Your task to perform on an android device: turn off priority inbox in the gmail app Image 0: 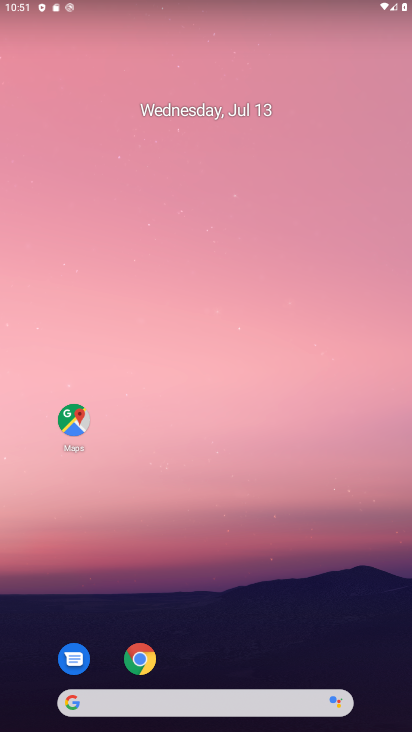
Step 0: click (224, 144)
Your task to perform on an android device: turn off priority inbox in the gmail app Image 1: 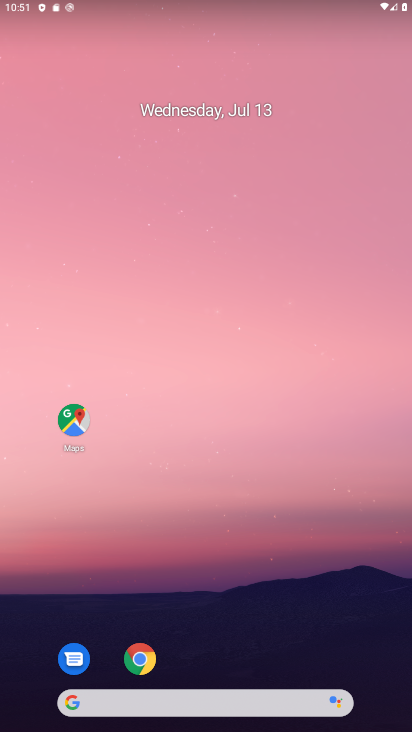
Step 1: drag from (243, 629) to (224, 34)
Your task to perform on an android device: turn off priority inbox in the gmail app Image 2: 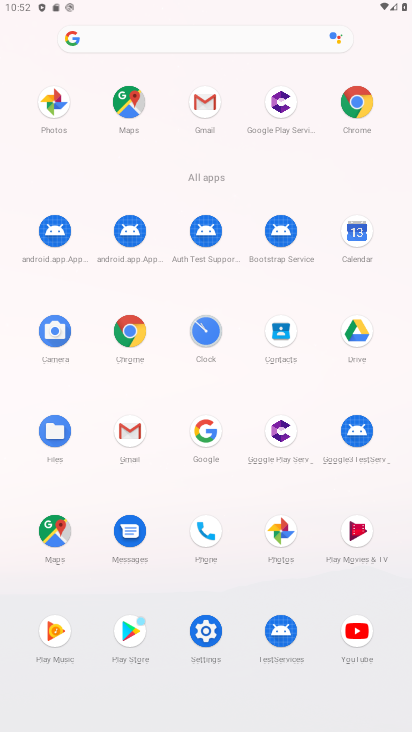
Step 2: click (137, 439)
Your task to perform on an android device: turn off priority inbox in the gmail app Image 3: 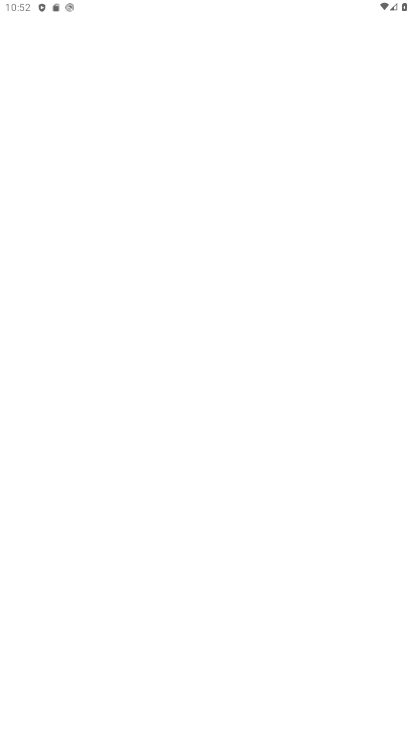
Step 3: click (137, 437)
Your task to perform on an android device: turn off priority inbox in the gmail app Image 4: 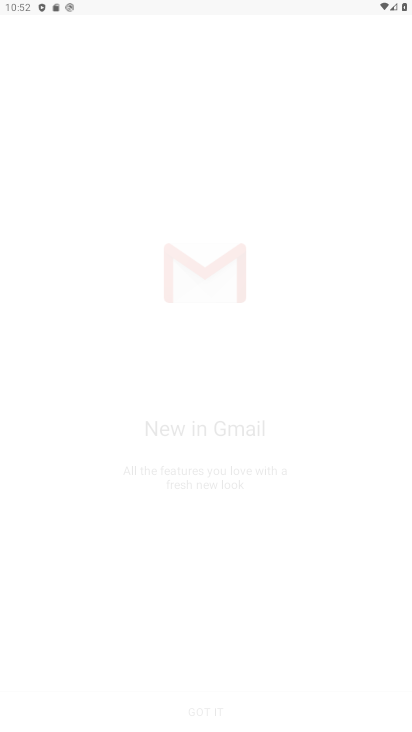
Step 4: click (137, 437)
Your task to perform on an android device: turn off priority inbox in the gmail app Image 5: 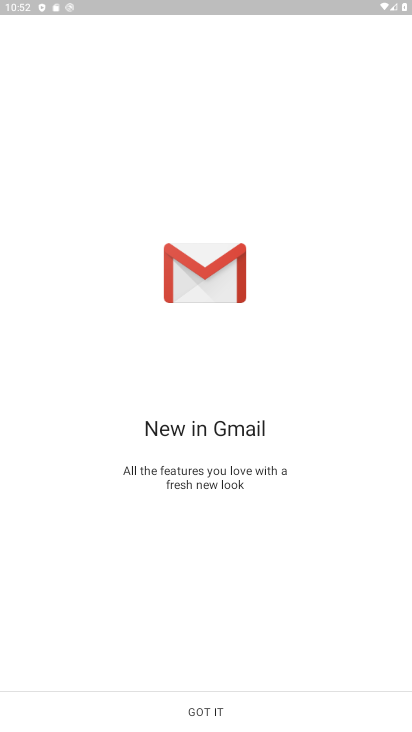
Step 5: click (137, 437)
Your task to perform on an android device: turn off priority inbox in the gmail app Image 6: 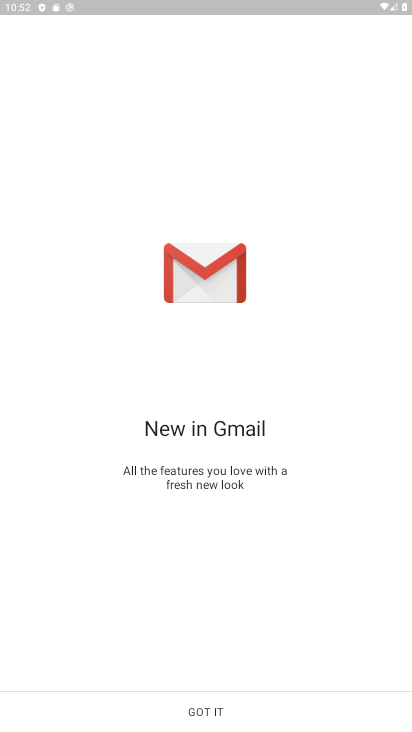
Step 6: click (219, 705)
Your task to perform on an android device: turn off priority inbox in the gmail app Image 7: 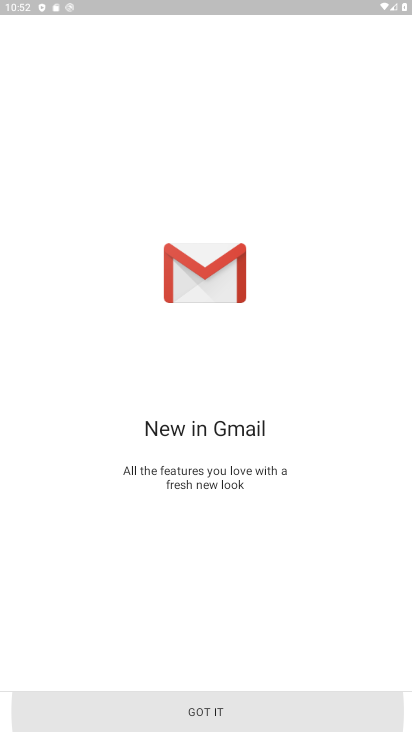
Step 7: click (219, 705)
Your task to perform on an android device: turn off priority inbox in the gmail app Image 8: 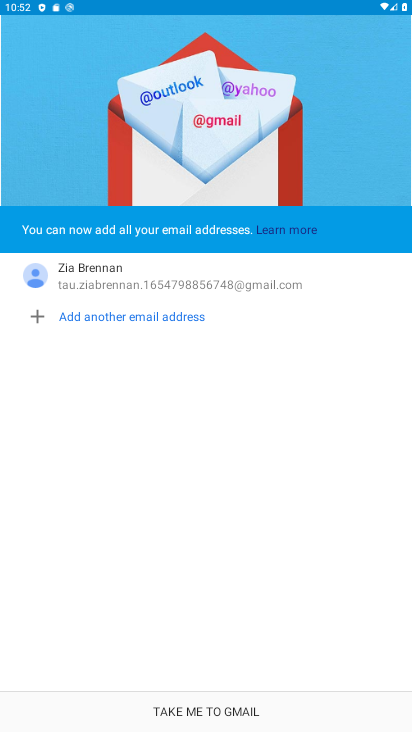
Step 8: click (234, 713)
Your task to perform on an android device: turn off priority inbox in the gmail app Image 9: 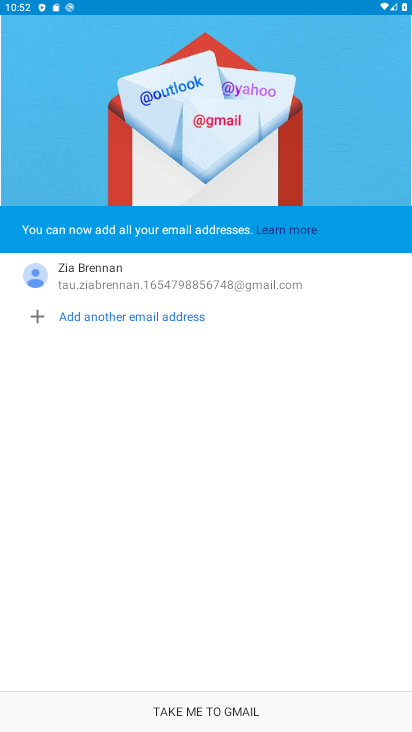
Step 9: click (234, 713)
Your task to perform on an android device: turn off priority inbox in the gmail app Image 10: 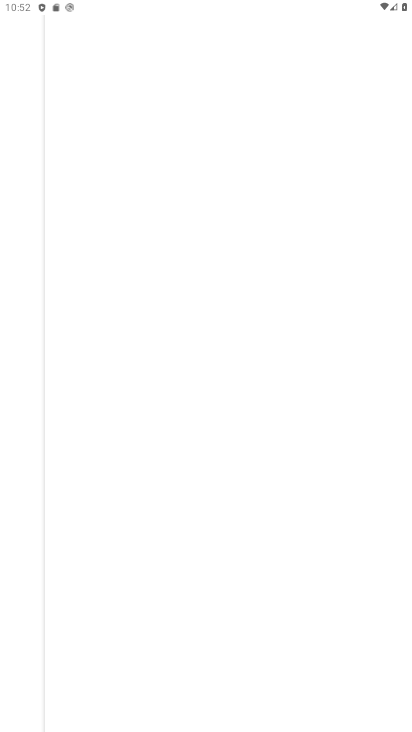
Step 10: click (234, 713)
Your task to perform on an android device: turn off priority inbox in the gmail app Image 11: 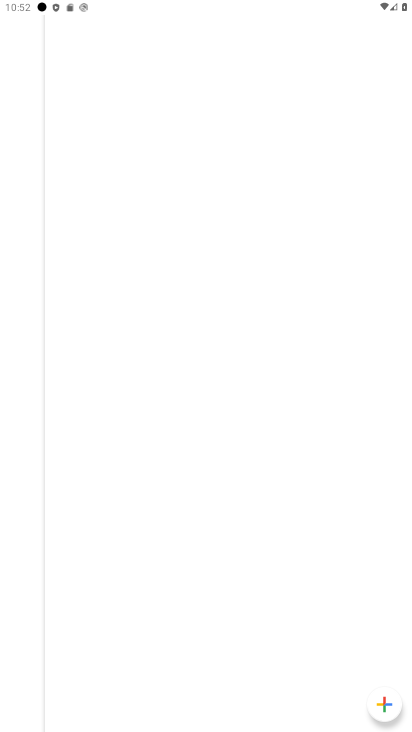
Step 11: click (234, 713)
Your task to perform on an android device: turn off priority inbox in the gmail app Image 12: 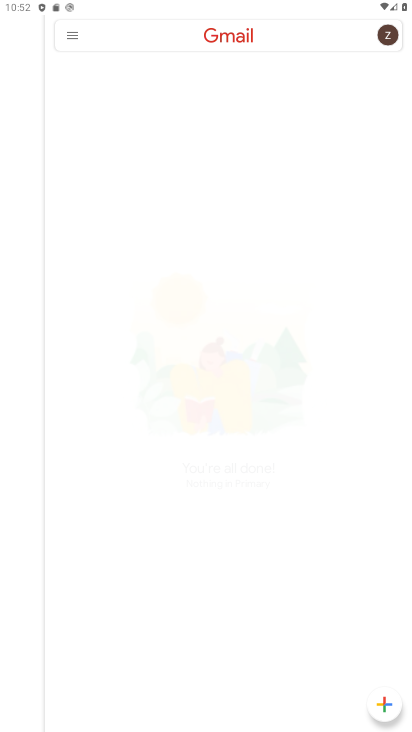
Step 12: click (235, 709)
Your task to perform on an android device: turn off priority inbox in the gmail app Image 13: 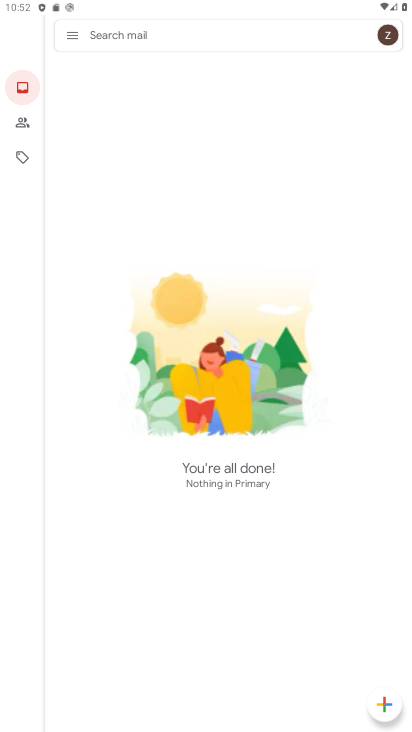
Step 13: drag from (78, 30) to (98, 217)
Your task to perform on an android device: turn off priority inbox in the gmail app Image 14: 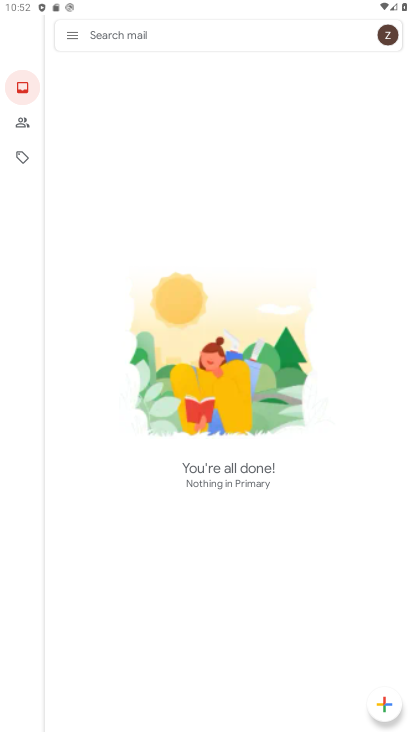
Step 14: click (81, 31)
Your task to perform on an android device: turn off priority inbox in the gmail app Image 15: 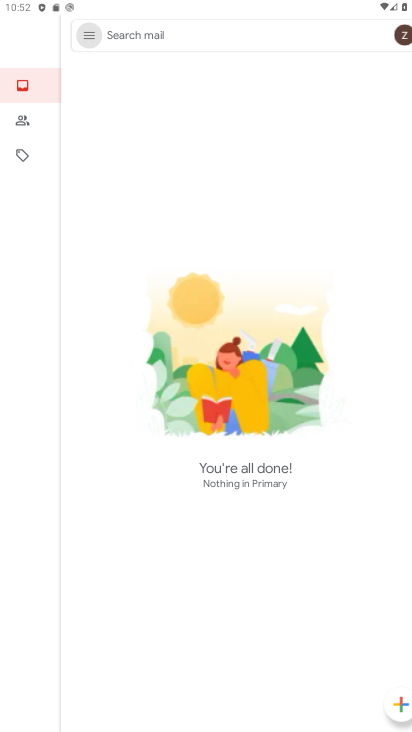
Step 15: click (77, 36)
Your task to perform on an android device: turn off priority inbox in the gmail app Image 16: 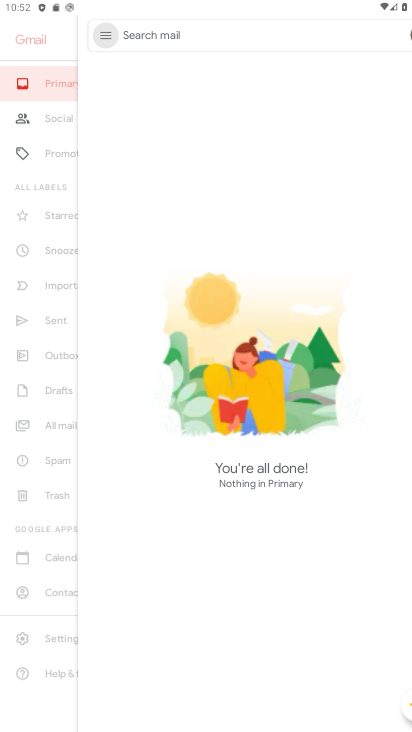
Step 16: click (77, 37)
Your task to perform on an android device: turn off priority inbox in the gmail app Image 17: 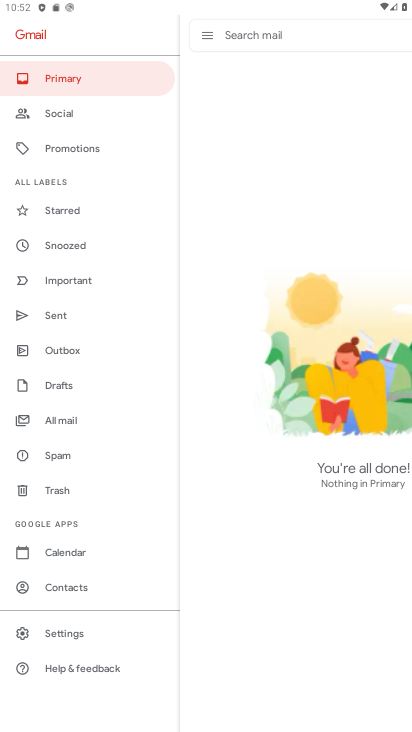
Step 17: click (77, 37)
Your task to perform on an android device: turn off priority inbox in the gmail app Image 18: 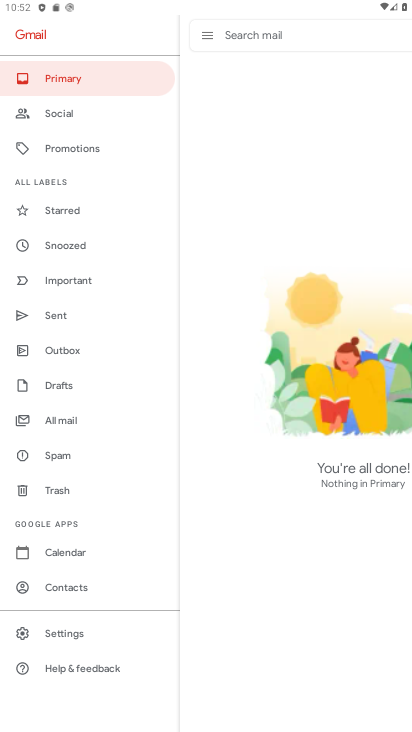
Step 18: drag from (77, 37) to (67, 626)
Your task to perform on an android device: turn off priority inbox in the gmail app Image 19: 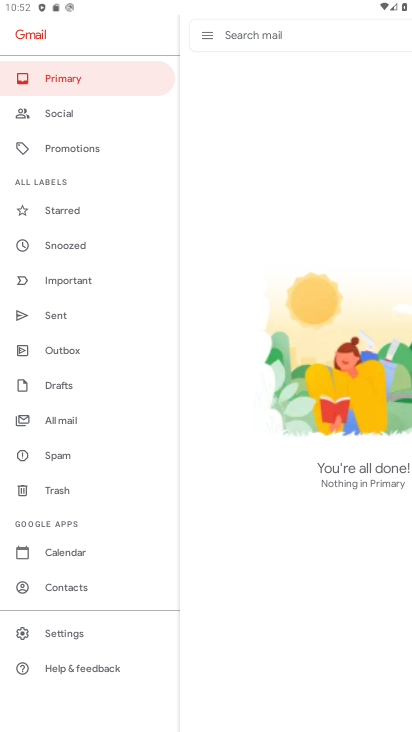
Step 19: click (68, 627)
Your task to perform on an android device: turn off priority inbox in the gmail app Image 20: 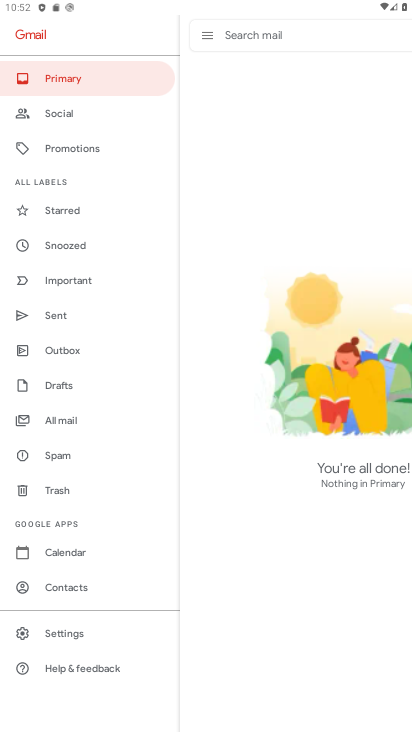
Step 20: click (68, 627)
Your task to perform on an android device: turn off priority inbox in the gmail app Image 21: 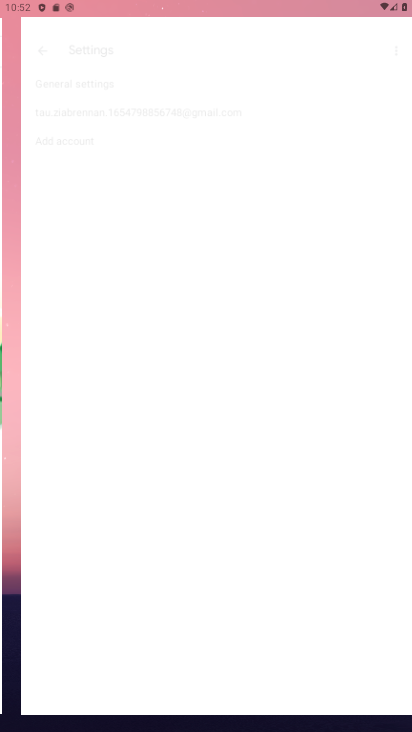
Step 21: click (74, 628)
Your task to perform on an android device: turn off priority inbox in the gmail app Image 22: 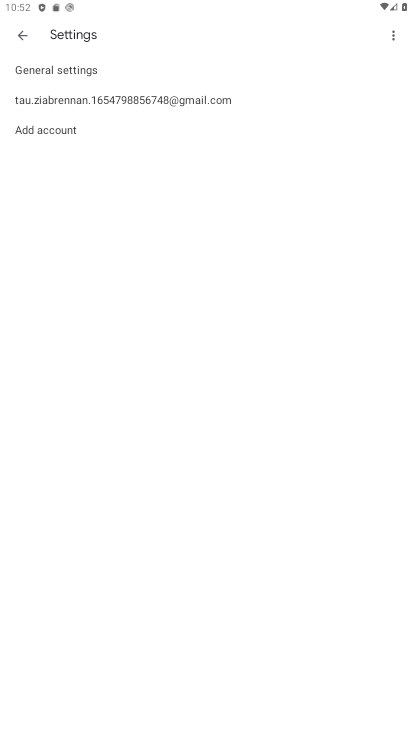
Step 22: click (87, 93)
Your task to perform on an android device: turn off priority inbox in the gmail app Image 23: 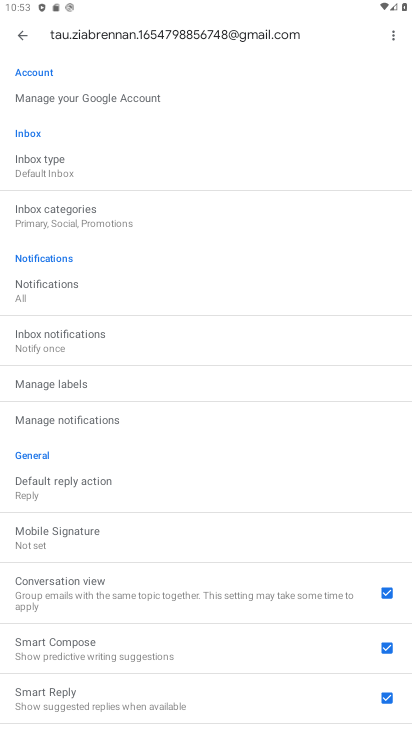
Step 23: click (45, 162)
Your task to perform on an android device: turn off priority inbox in the gmail app Image 24: 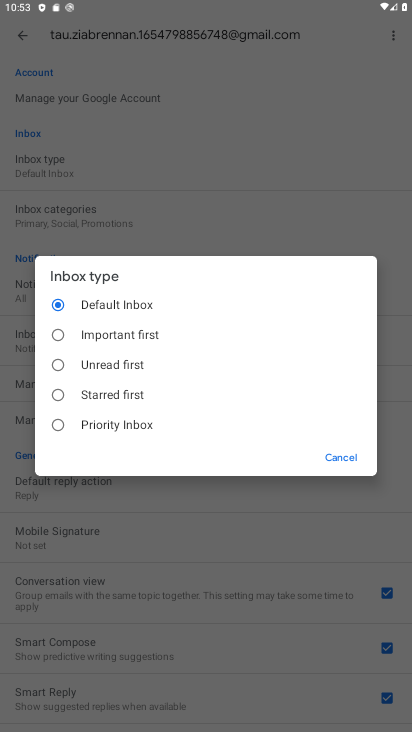
Step 24: click (55, 423)
Your task to perform on an android device: turn off priority inbox in the gmail app Image 25: 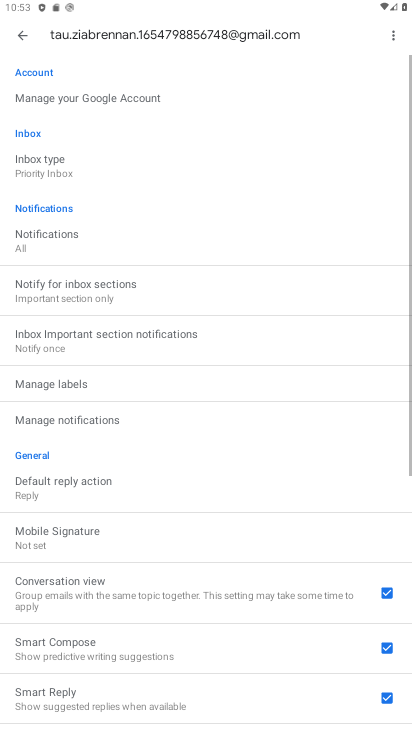
Step 25: click (339, 459)
Your task to perform on an android device: turn off priority inbox in the gmail app Image 26: 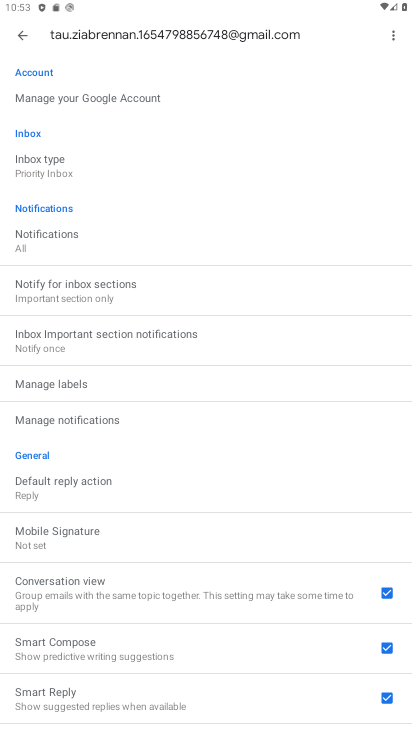
Step 26: task complete